Your task to perform on an android device: turn off improve location accuracy Image 0: 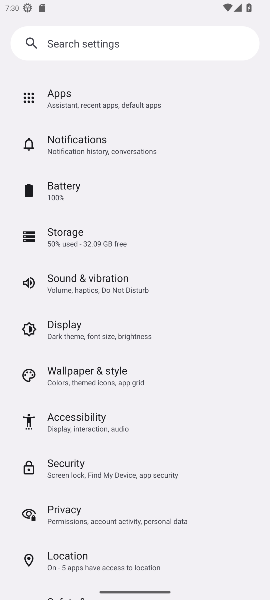
Step 0: press home button
Your task to perform on an android device: turn off improve location accuracy Image 1: 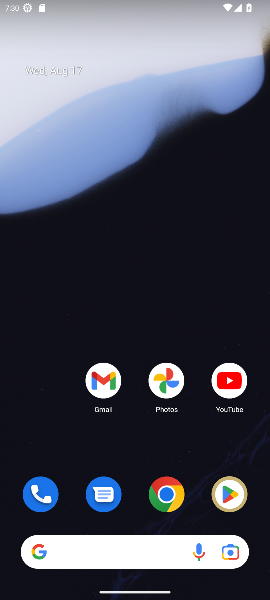
Step 1: drag from (91, 474) to (177, 49)
Your task to perform on an android device: turn off improve location accuracy Image 2: 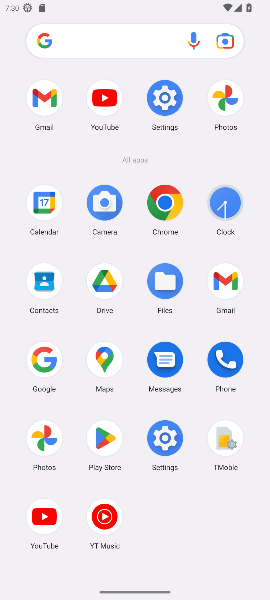
Step 2: click (164, 100)
Your task to perform on an android device: turn off improve location accuracy Image 3: 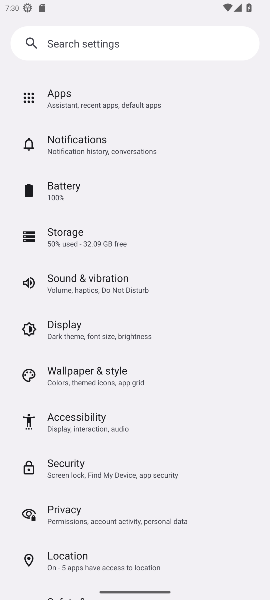
Step 3: drag from (123, 482) to (190, 83)
Your task to perform on an android device: turn off improve location accuracy Image 4: 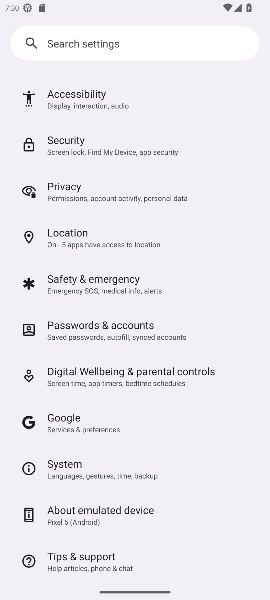
Step 4: click (65, 245)
Your task to perform on an android device: turn off improve location accuracy Image 5: 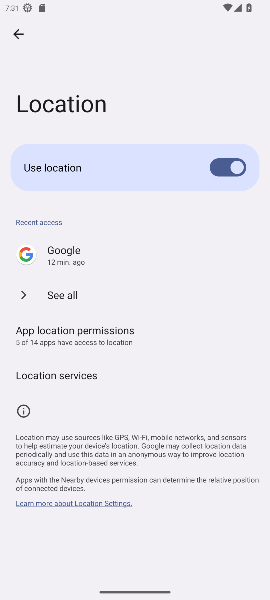
Step 5: task complete